Your task to perform on an android device: turn on translation in the chrome app Image 0: 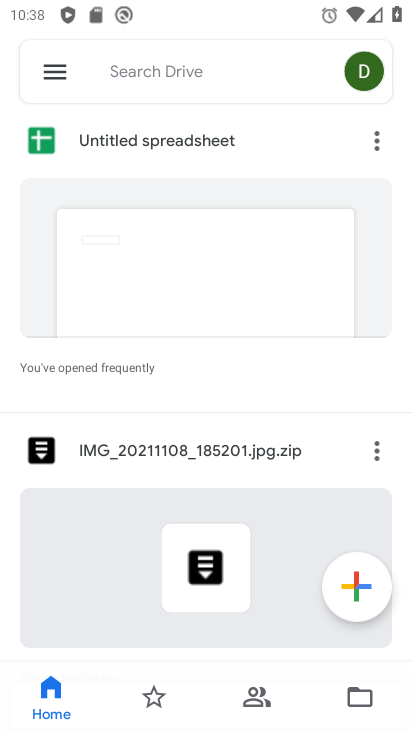
Step 0: press home button
Your task to perform on an android device: turn on translation in the chrome app Image 1: 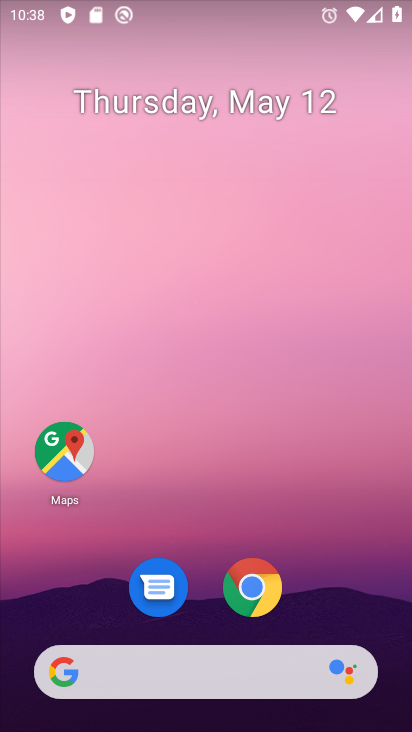
Step 1: drag from (325, 505) to (324, 21)
Your task to perform on an android device: turn on translation in the chrome app Image 2: 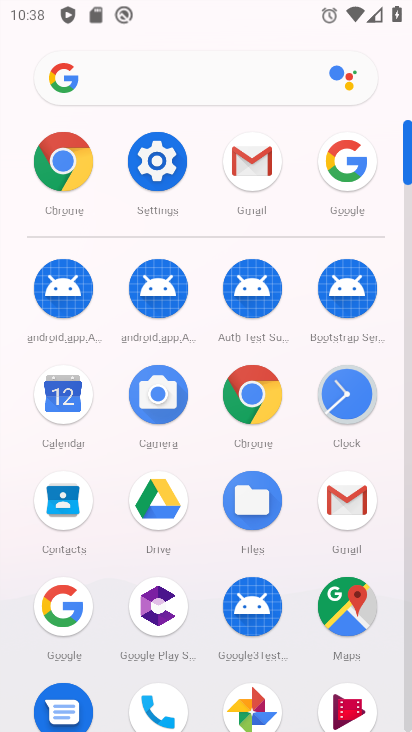
Step 2: click (67, 172)
Your task to perform on an android device: turn on translation in the chrome app Image 3: 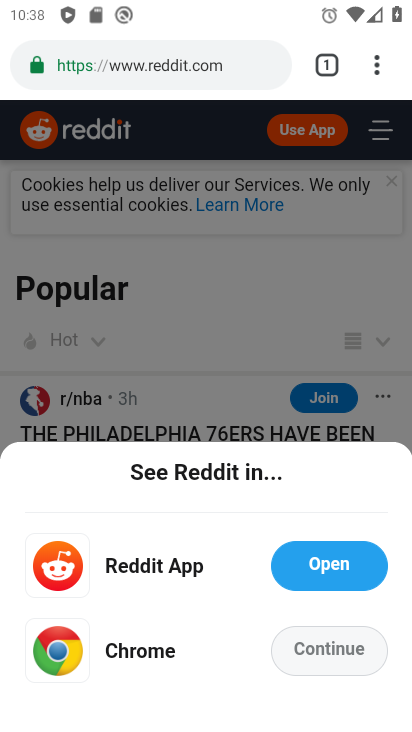
Step 3: drag from (373, 74) to (170, 634)
Your task to perform on an android device: turn on translation in the chrome app Image 4: 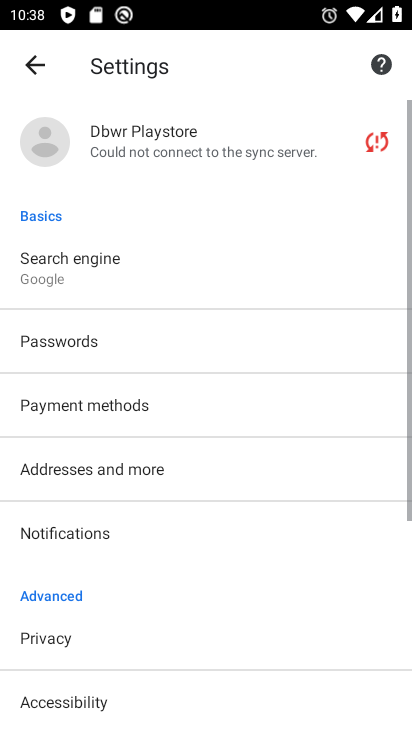
Step 4: drag from (166, 620) to (70, 259)
Your task to perform on an android device: turn on translation in the chrome app Image 5: 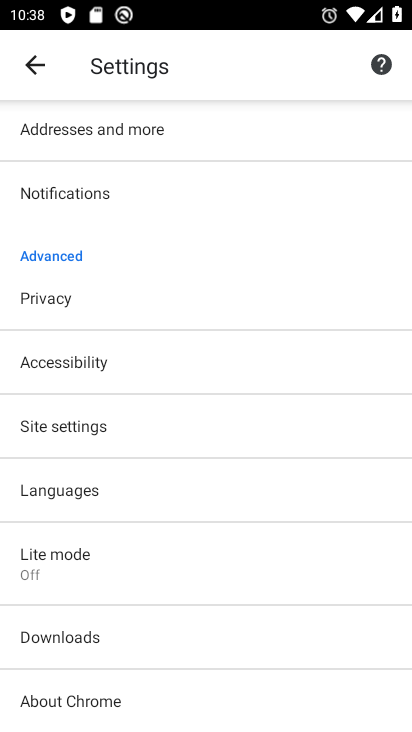
Step 5: click (92, 498)
Your task to perform on an android device: turn on translation in the chrome app Image 6: 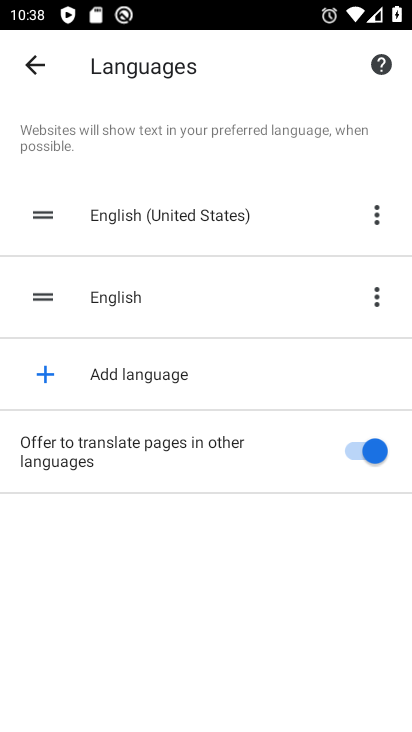
Step 6: task complete